Your task to perform on an android device: check data usage Image 0: 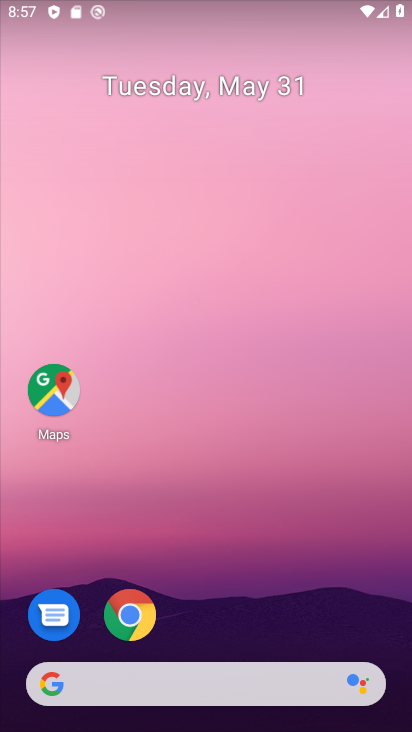
Step 0: drag from (239, 542) to (303, 103)
Your task to perform on an android device: check data usage Image 1: 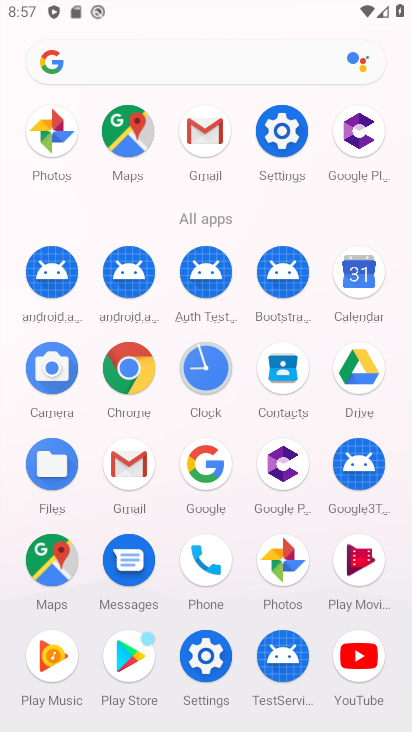
Step 1: click (284, 137)
Your task to perform on an android device: check data usage Image 2: 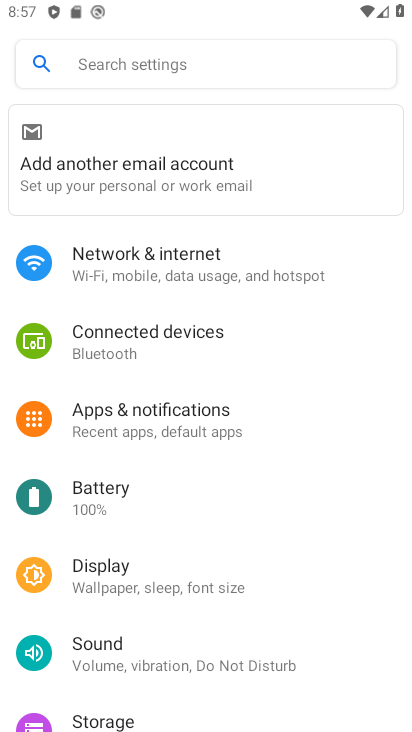
Step 2: click (218, 258)
Your task to perform on an android device: check data usage Image 3: 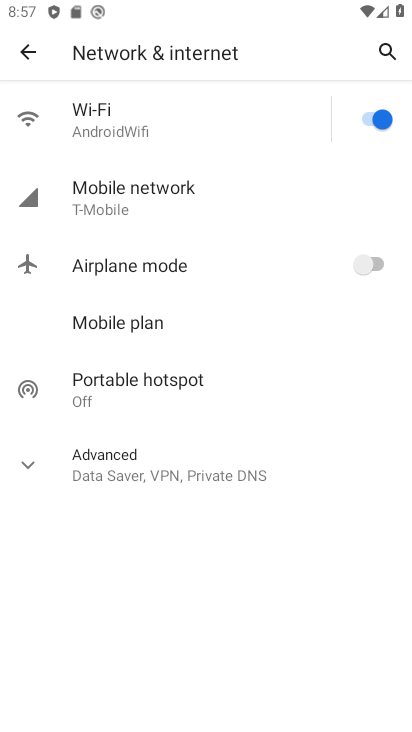
Step 3: click (151, 192)
Your task to perform on an android device: check data usage Image 4: 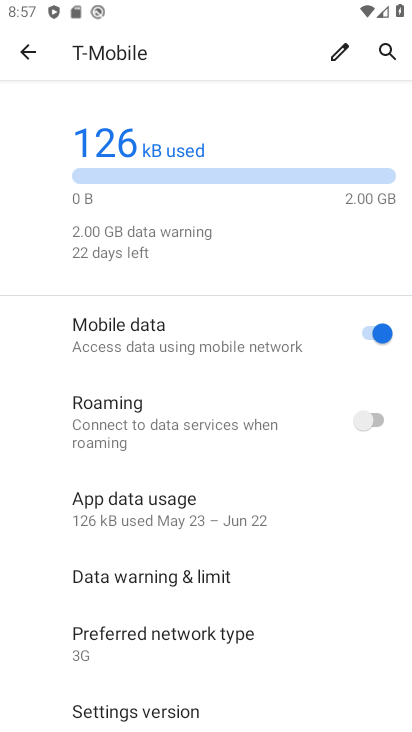
Step 4: click (159, 512)
Your task to perform on an android device: check data usage Image 5: 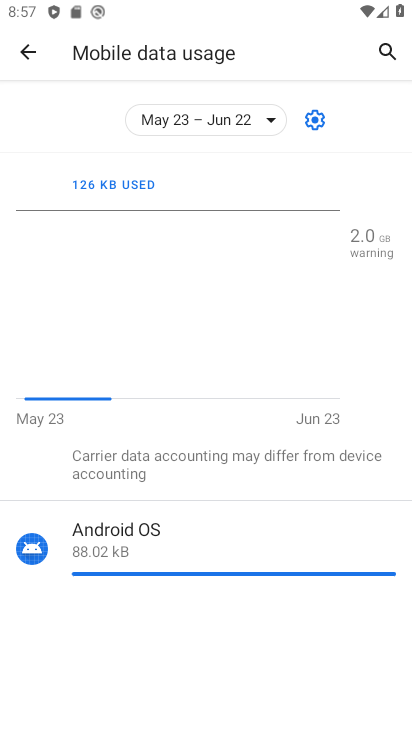
Step 5: task complete